Your task to perform on an android device: What is the recent news? Image 0: 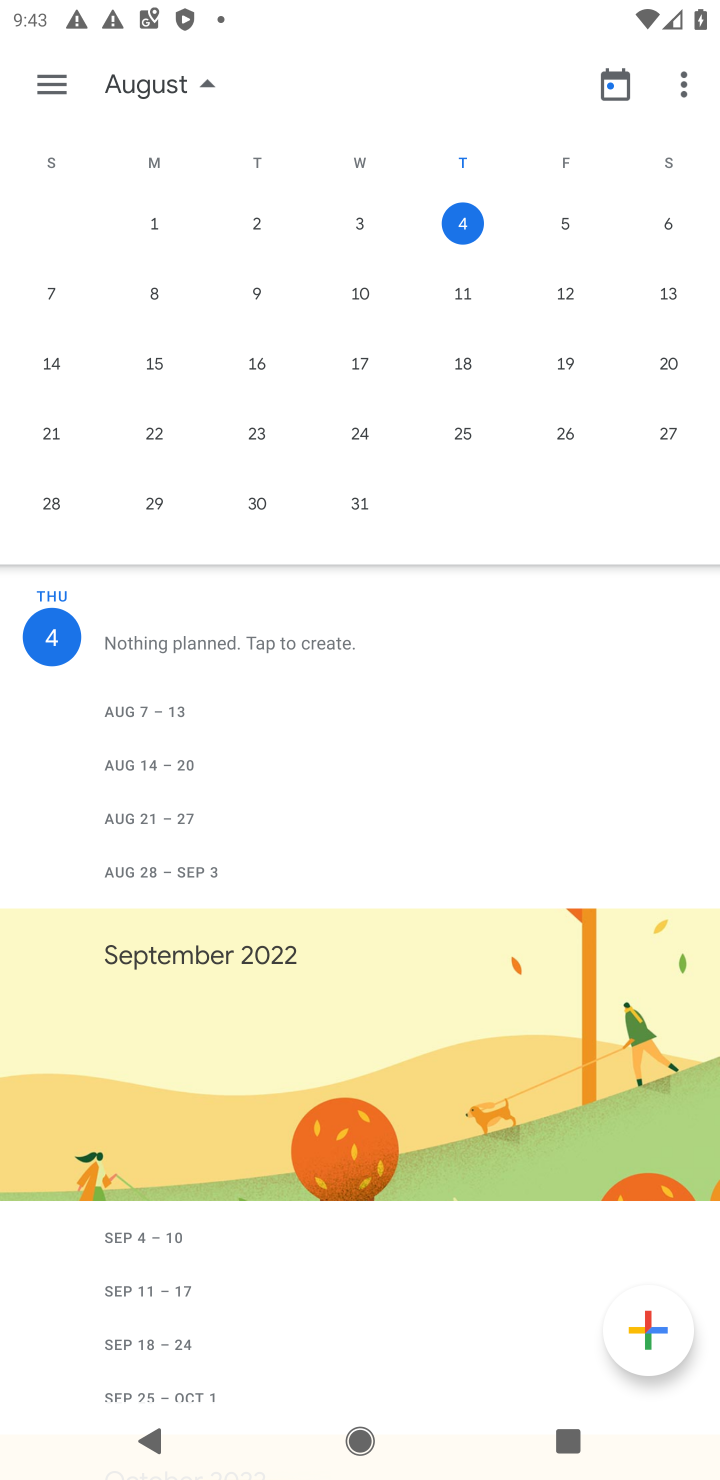
Step 0: task complete